Your task to perform on an android device: Clear the shopping cart on costco.com. Search for razer huntsman on costco.com, select the first entry, add it to the cart, then select checkout. Image 0: 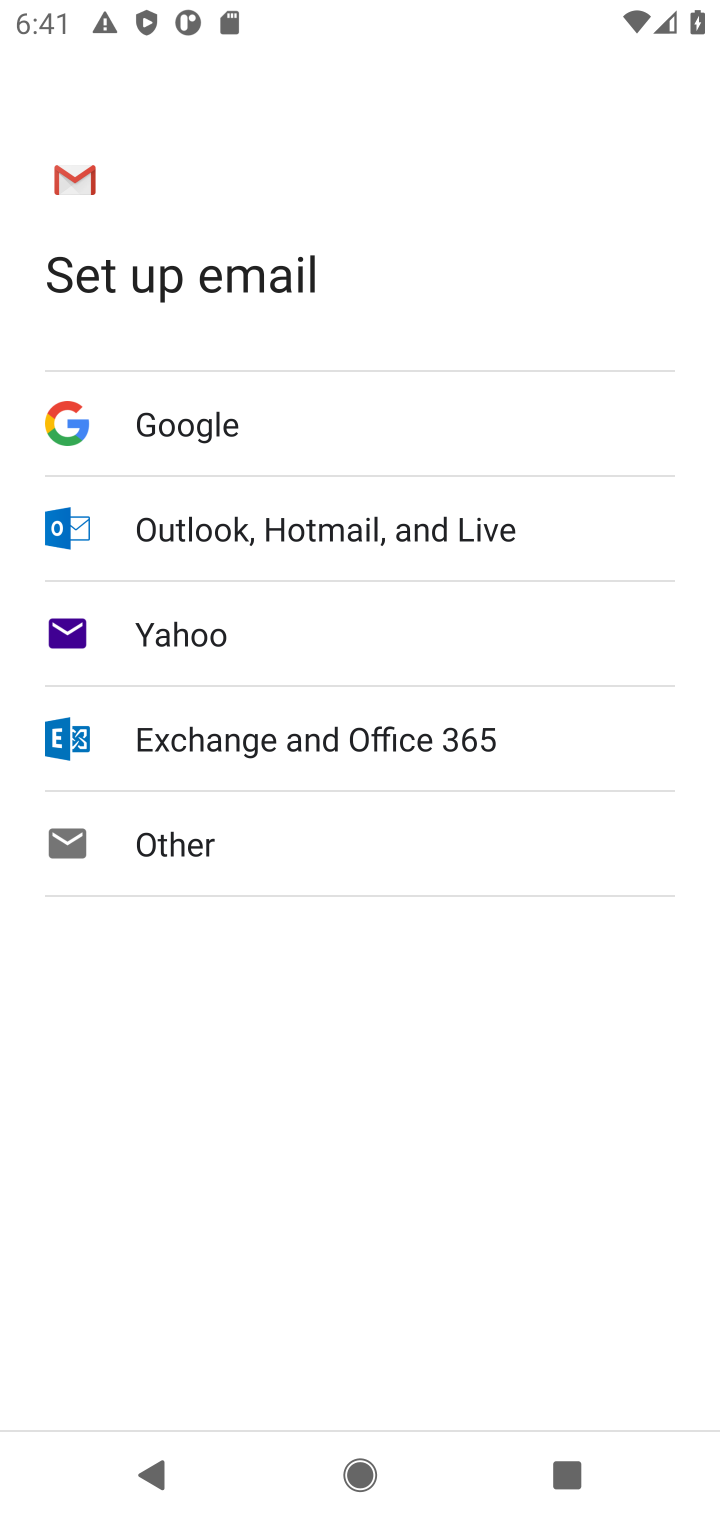
Step 0: press home button
Your task to perform on an android device: Clear the shopping cart on costco.com. Search for razer huntsman on costco.com, select the first entry, add it to the cart, then select checkout. Image 1: 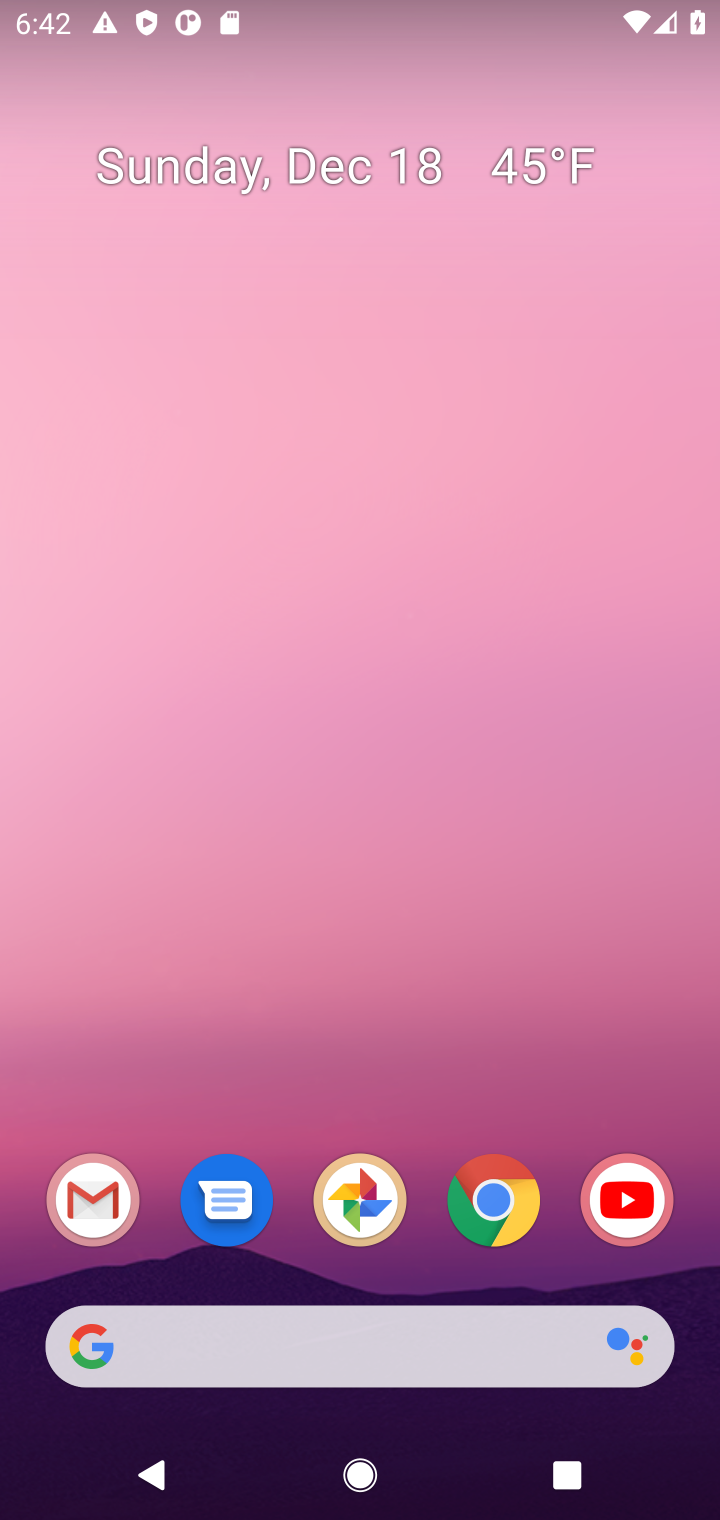
Step 1: click (493, 1221)
Your task to perform on an android device: Clear the shopping cart on costco.com. Search for razer huntsman on costco.com, select the first entry, add it to the cart, then select checkout. Image 2: 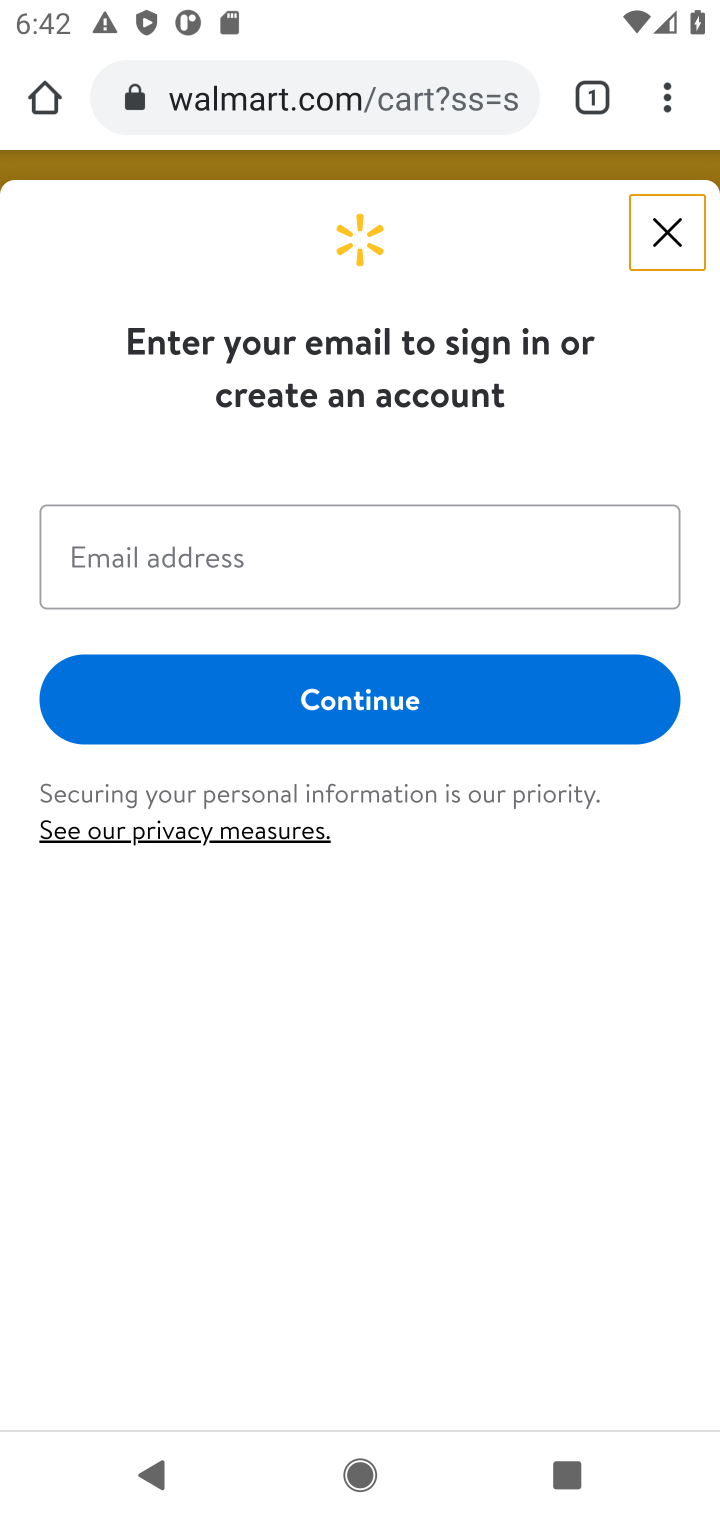
Step 2: click (262, 101)
Your task to perform on an android device: Clear the shopping cart on costco.com. Search for razer huntsman on costco.com, select the first entry, add it to the cart, then select checkout. Image 3: 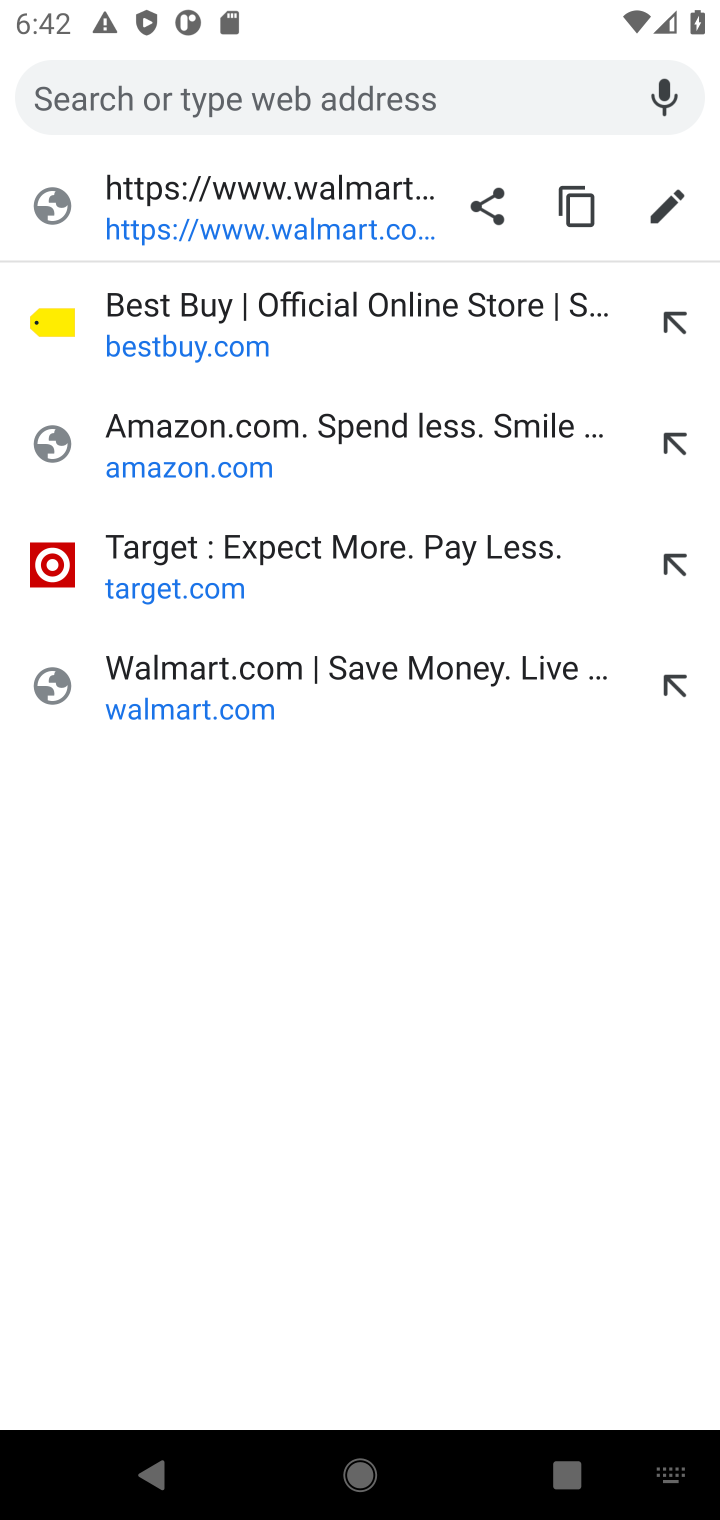
Step 3: type "costco.com"
Your task to perform on an android device: Clear the shopping cart on costco.com. Search for razer huntsman on costco.com, select the first entry, add it to the cart, then select checkout. Image 4: 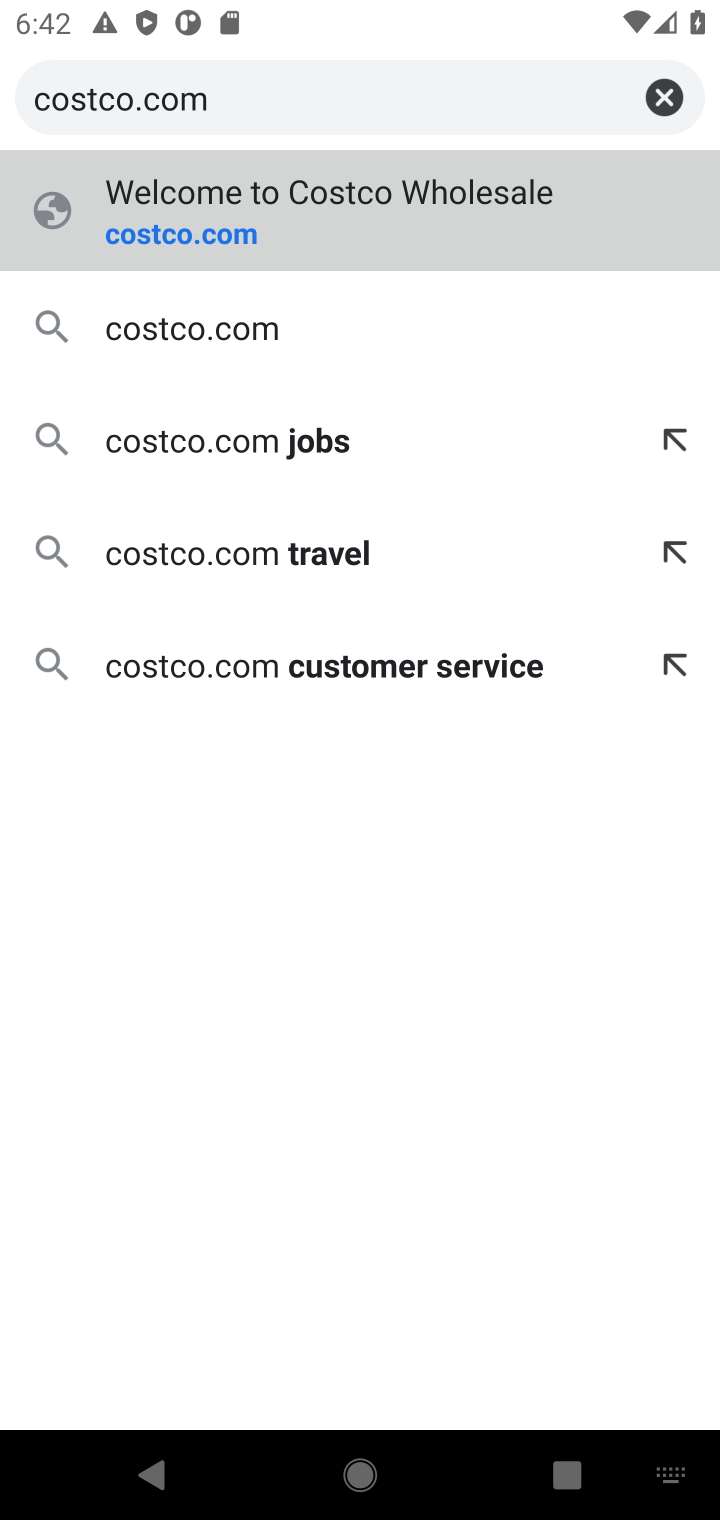
Step 4: click (221, 241)
Your task to perform on an android device: Clear the shopping cart on costco.com. Search for razer huntsman on costco.com, select the first entry, add it to the cart, then select checkout. Image 5: 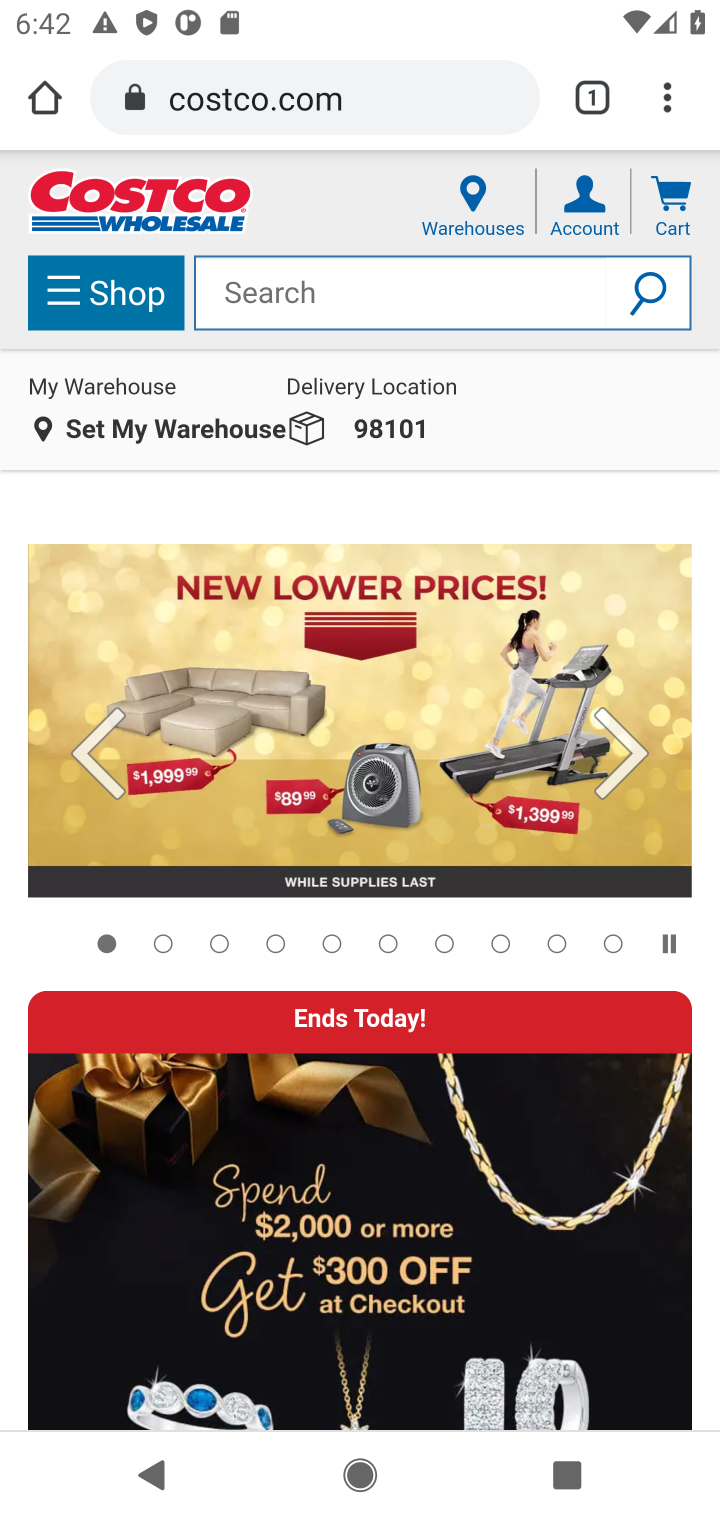
Step 5: click (671, 199)
Your task to perform on an android device: Clear the shopping cart on costco.com. Search for razer huntsman on costco.com, select the first entry, add it to the cart, then select checkout. Image 6: 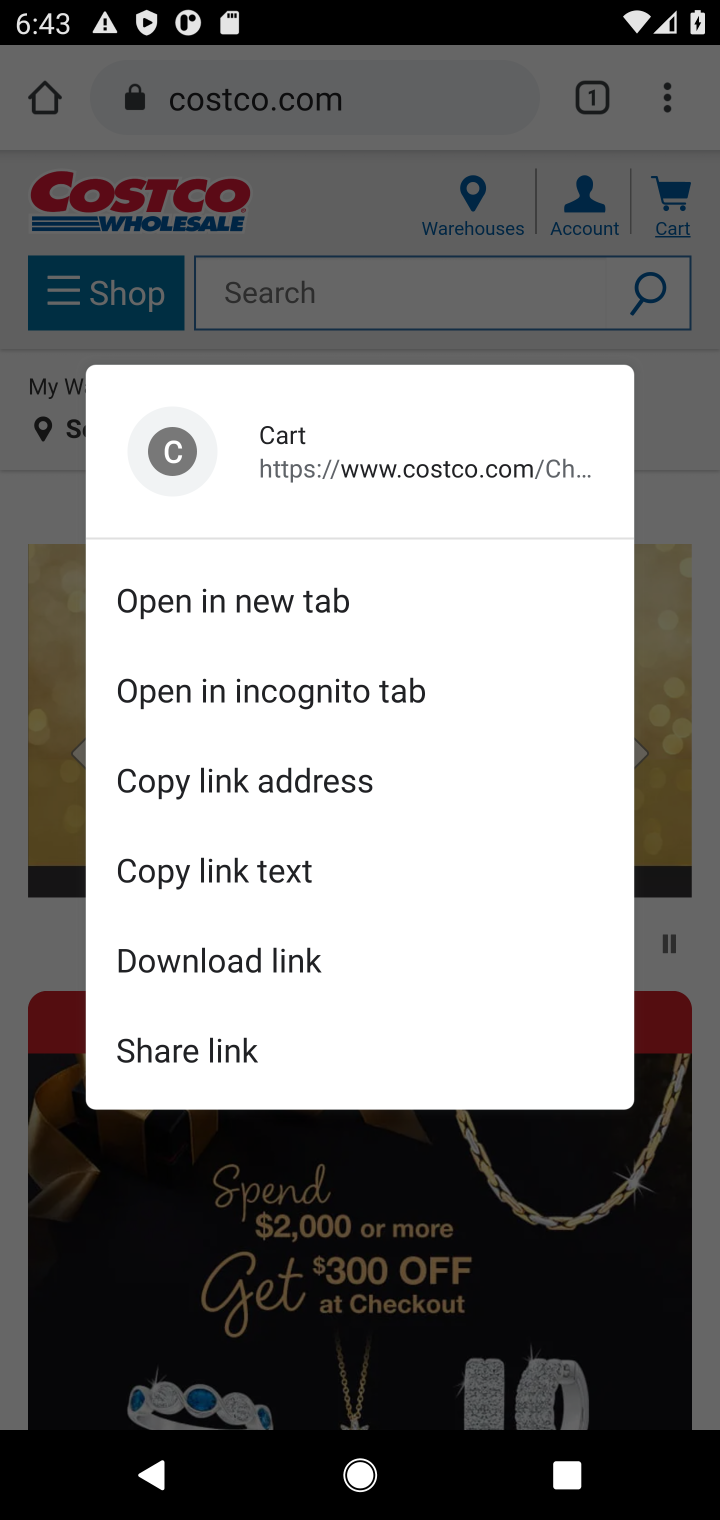
Step 6: click (671, 199)
Your task to perform on an android device: Clear the shopping cart on costco.com. Search for razer huntsman on costco.com, select the first entry, add it to the cart, then select checkout. Image 7: 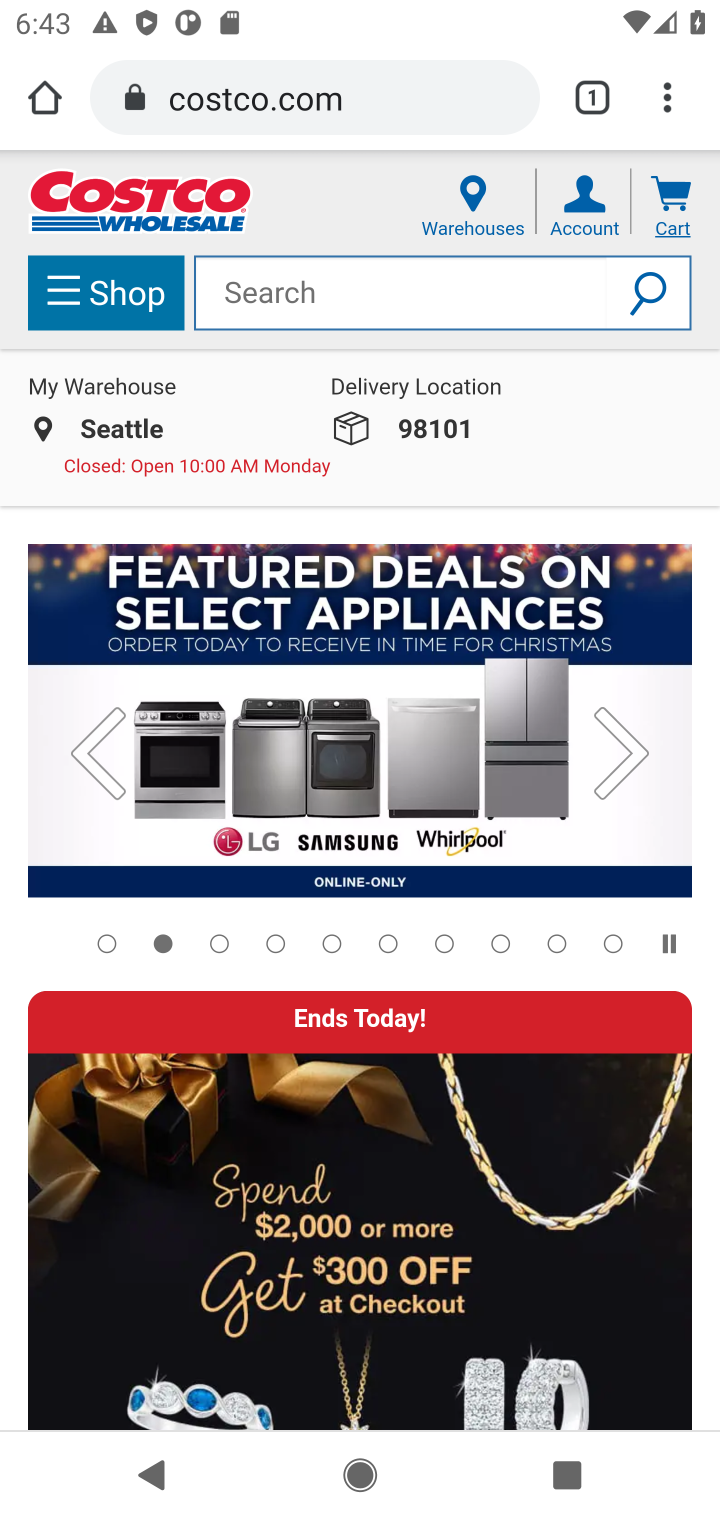
Step 7: click (682, 234)
Your task to perform on an android device: Clear the shopping cart on costco.com. Search for razer huntsman on costco.com, select the first entry, add it to the cart, then select checkout. Image 8: 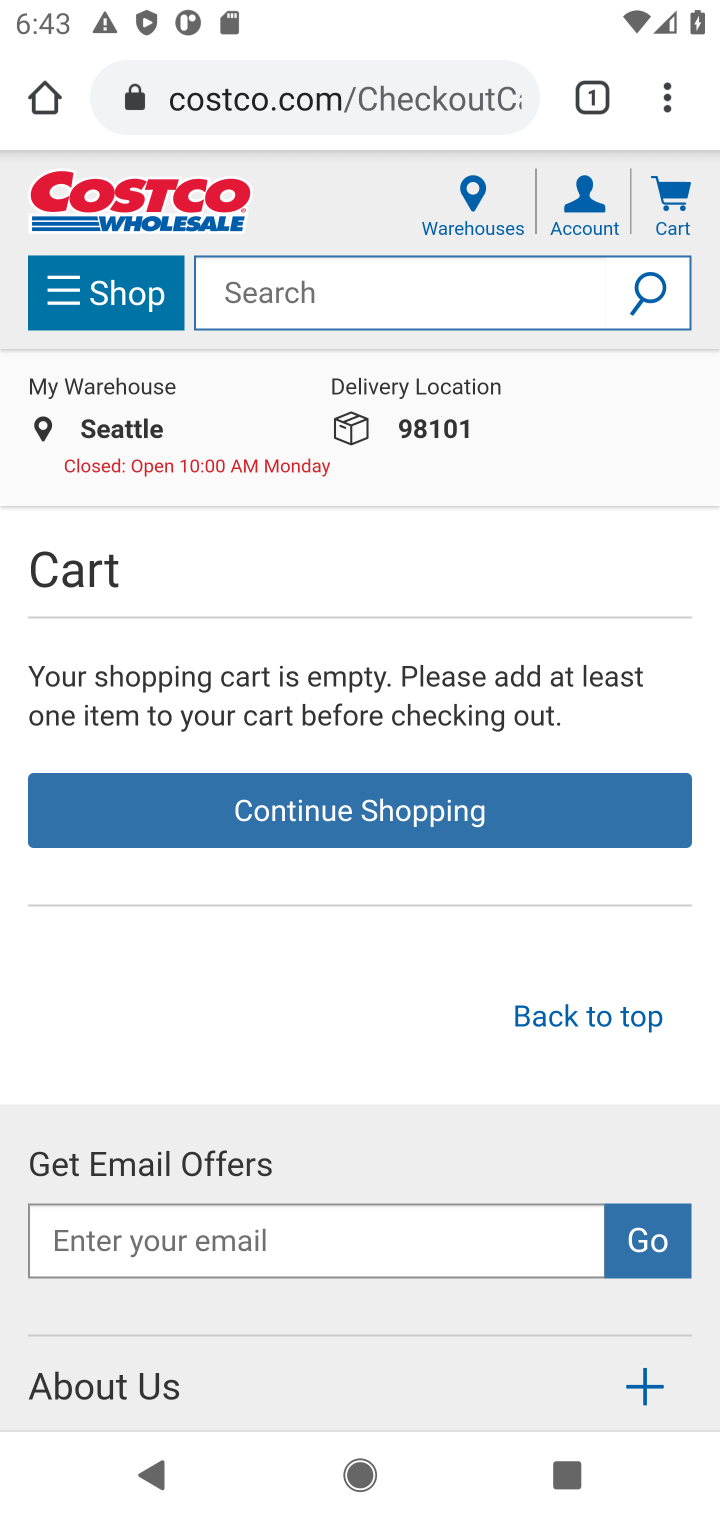
Step 8: click (279, 299)
Your task to perform on an android device: Clear the shopping cart on costco.com. Search for razer huntsman on costco.com, select the first entry, add it to the cart, then select checkout. Image 9: 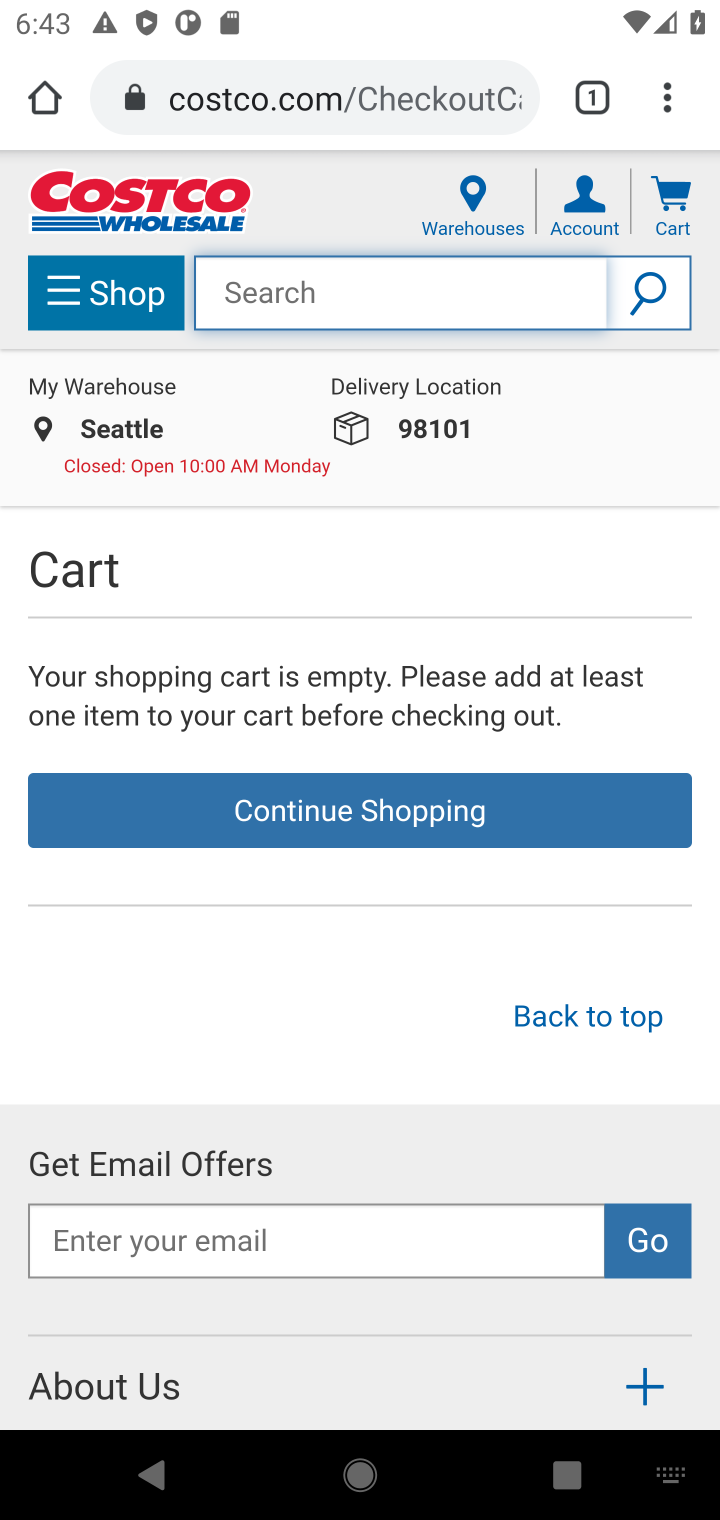
Step 9: type "razer huntsman"
Your task to perform on an android device: Clear the shopping cart on costco.com. Search for razer huntsman on costco.com, select the first entry, add it to the cart, then select checkout. Image 10: 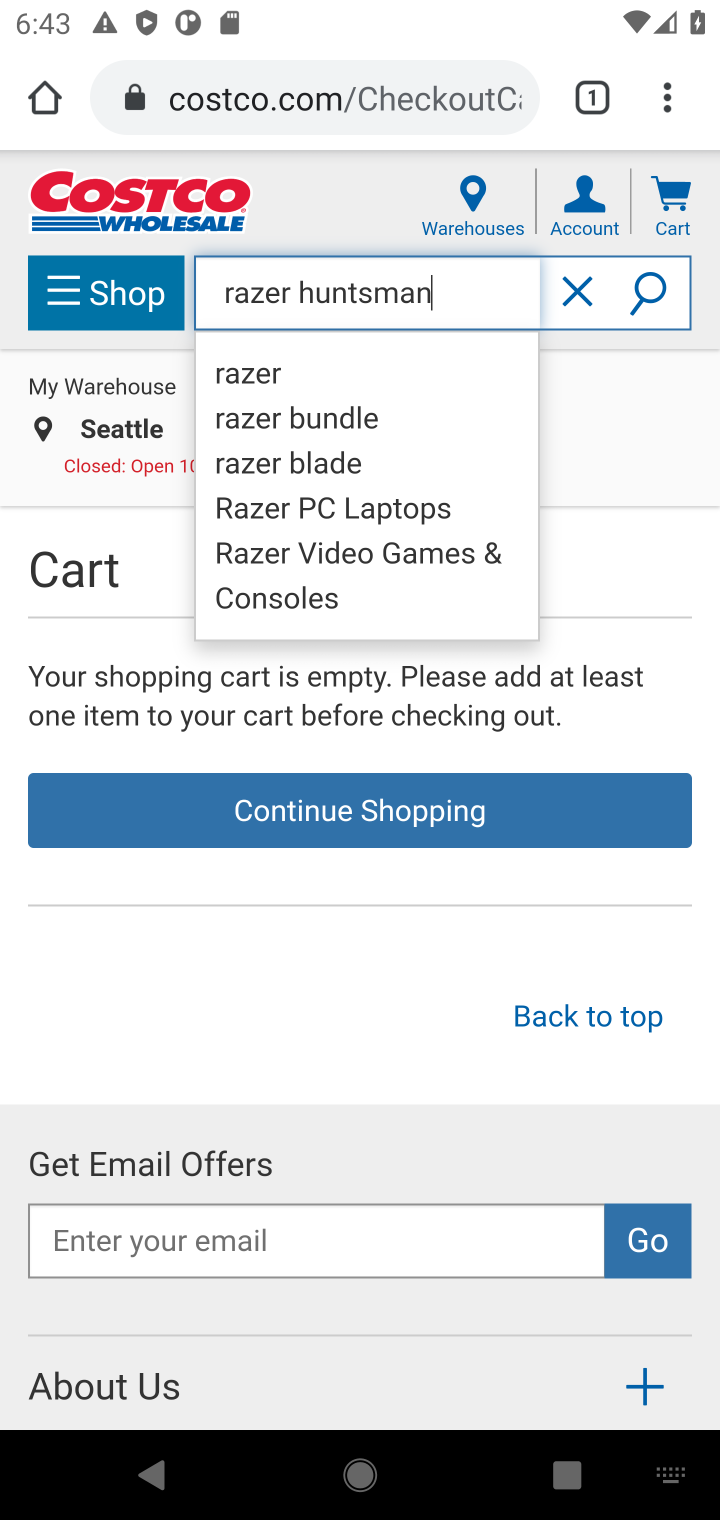
Step 10: click (650, 299)
Your task to perform on an android device: Clear the shopping cart on costco.com. Search for razer huntsman on costco.com, select the first entry, add it to the cart, then select checkout. Image 11: 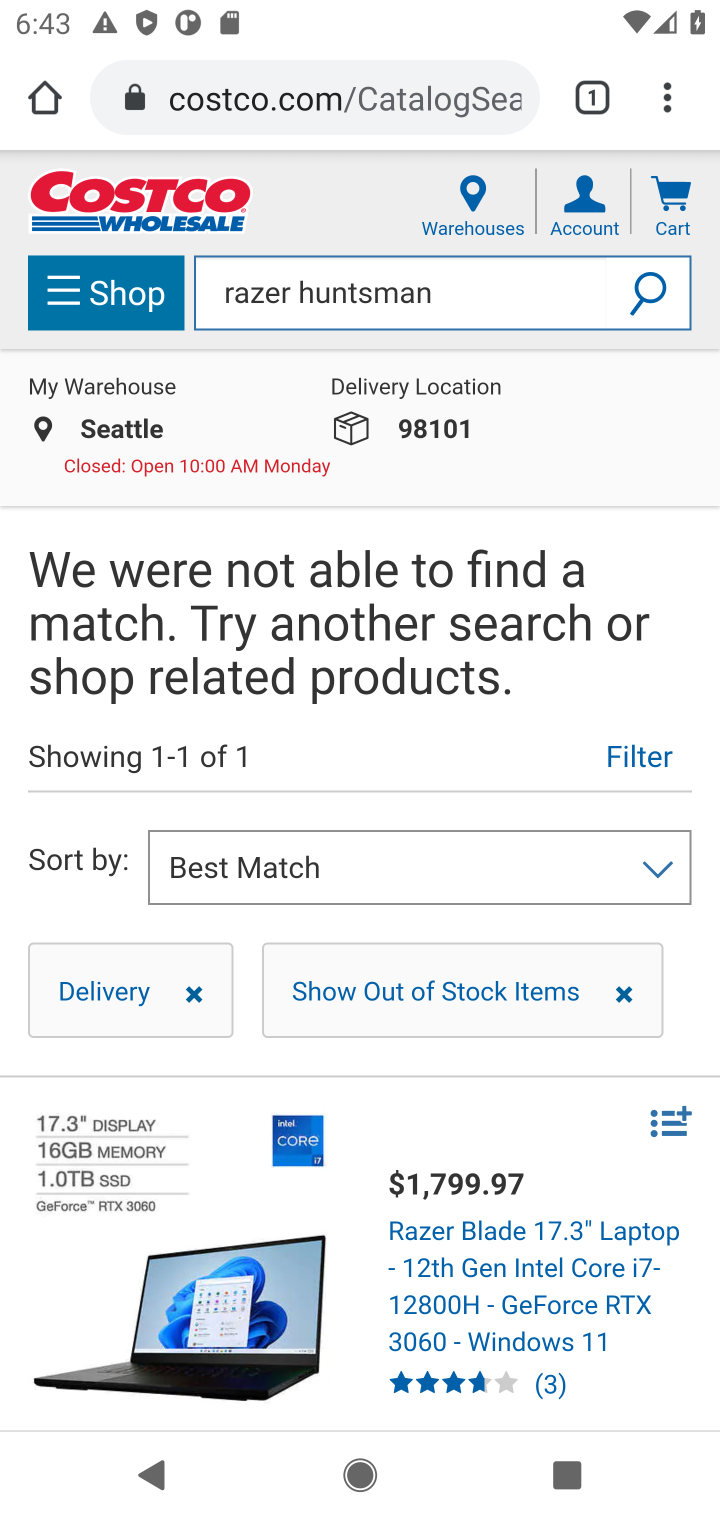
Step 11: task complete